Your task to perform on an android device: Go to Wikipedia Image 0: 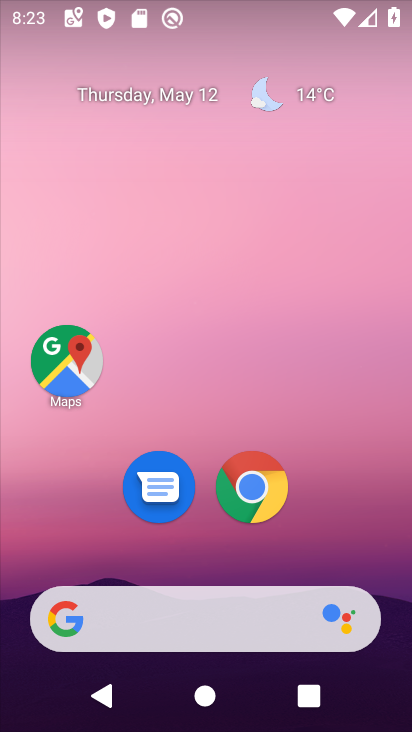
Step 0: click (260, 498)
Your task to perform on an android device: Go to Wikipedia Image 1: 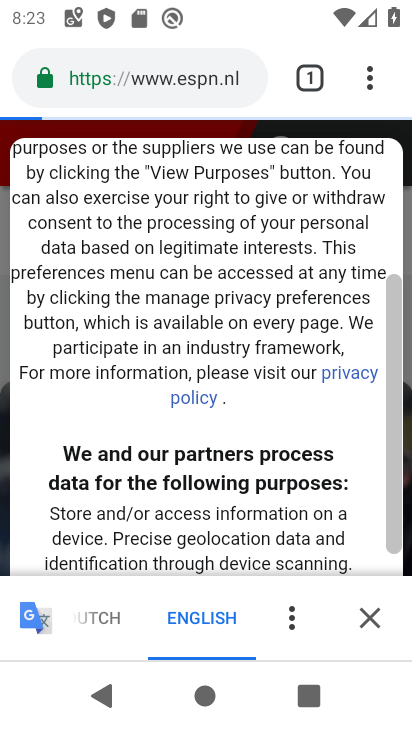
Step 1: click (149, 77)
Your task to perform on an android device: Go to Wikipedia Image 2: 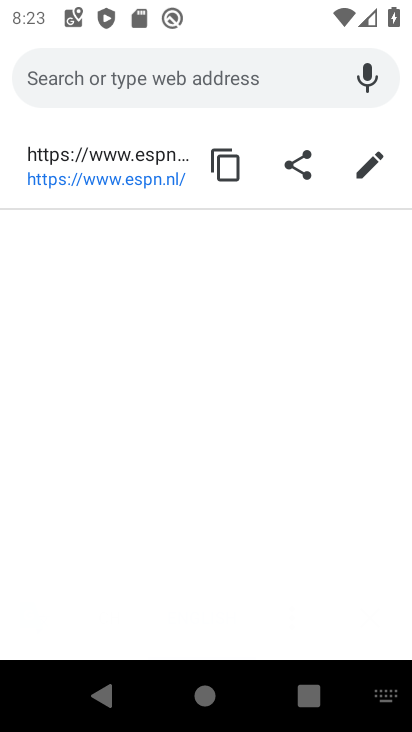
Step 2: type "wikipedia"
Your task to perform on an android device: Go to Wikipedia Image 3: 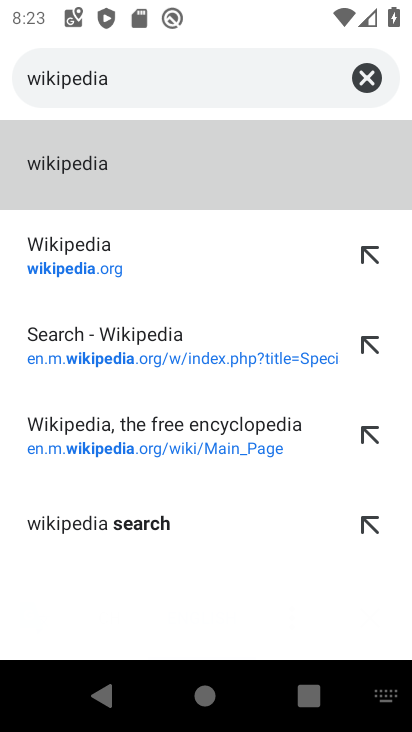
Step 3: click (79, 167)
Your task to perform on an android device: Go to Wikipedia Image 4: 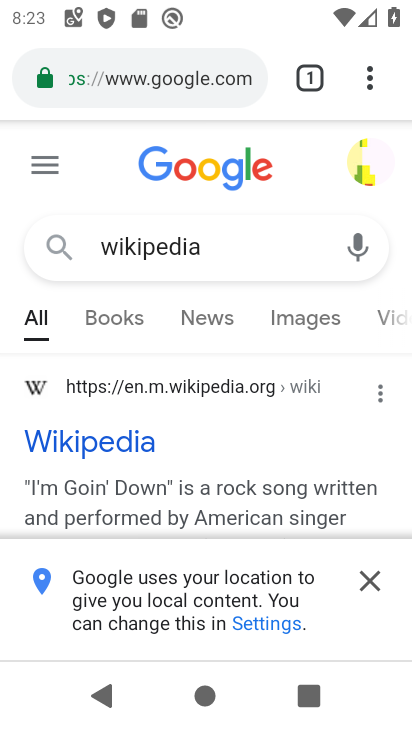
Step 4: click (69, 446)
Your task to perform on an android device: Go to Wikipedia Image 5: 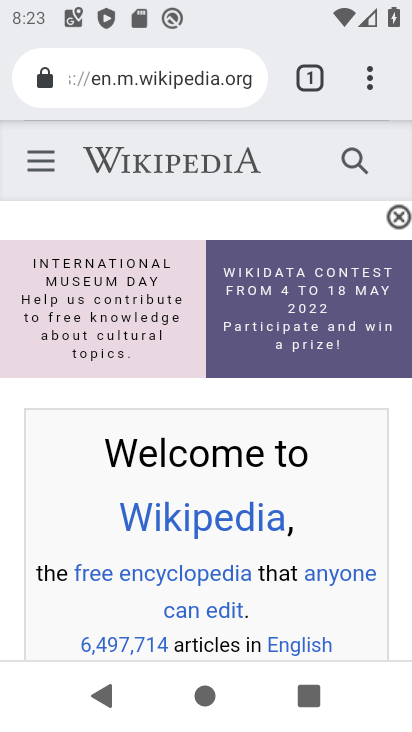
Step 5: task complete